Your task to perform on an android device: change the clock display to analog Image 0: 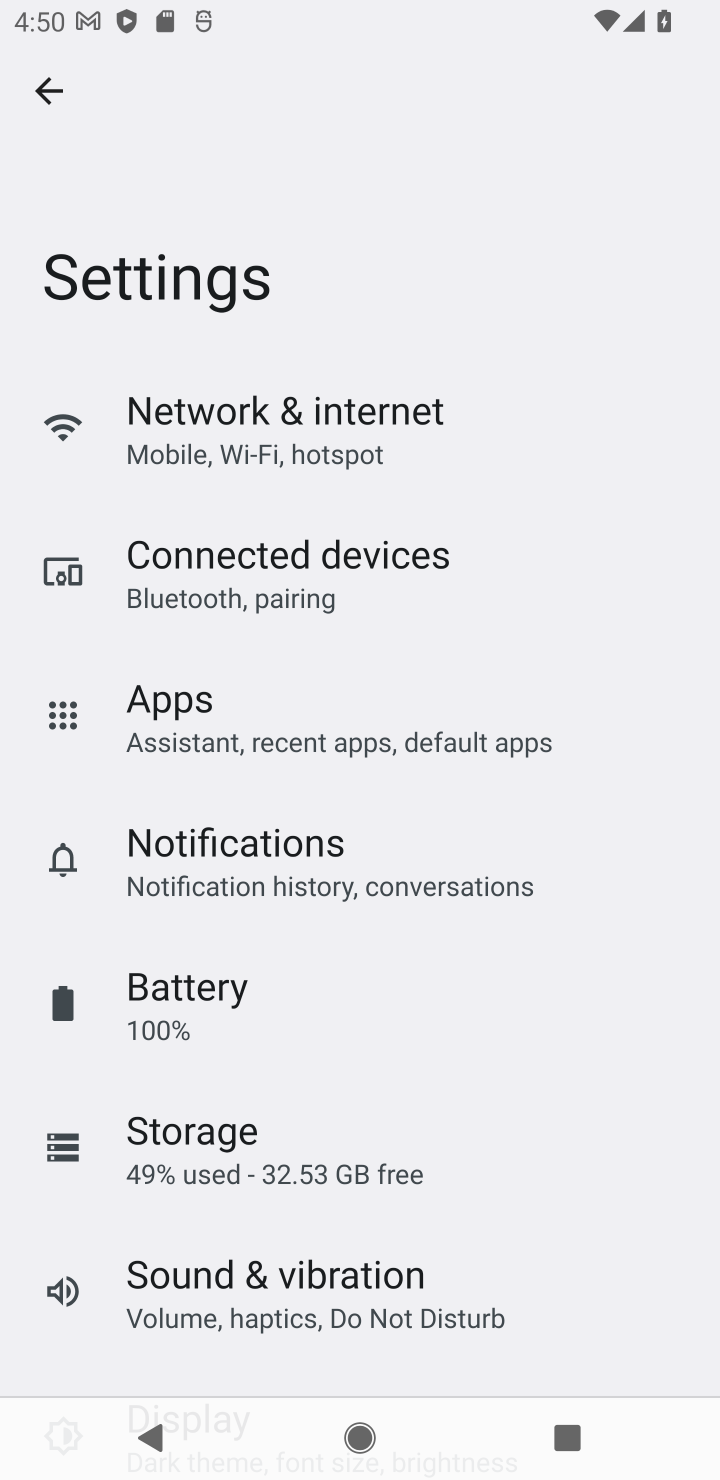
Step 0: press home button
Your task to perform on an android device: change the clock display to analog Image 1: 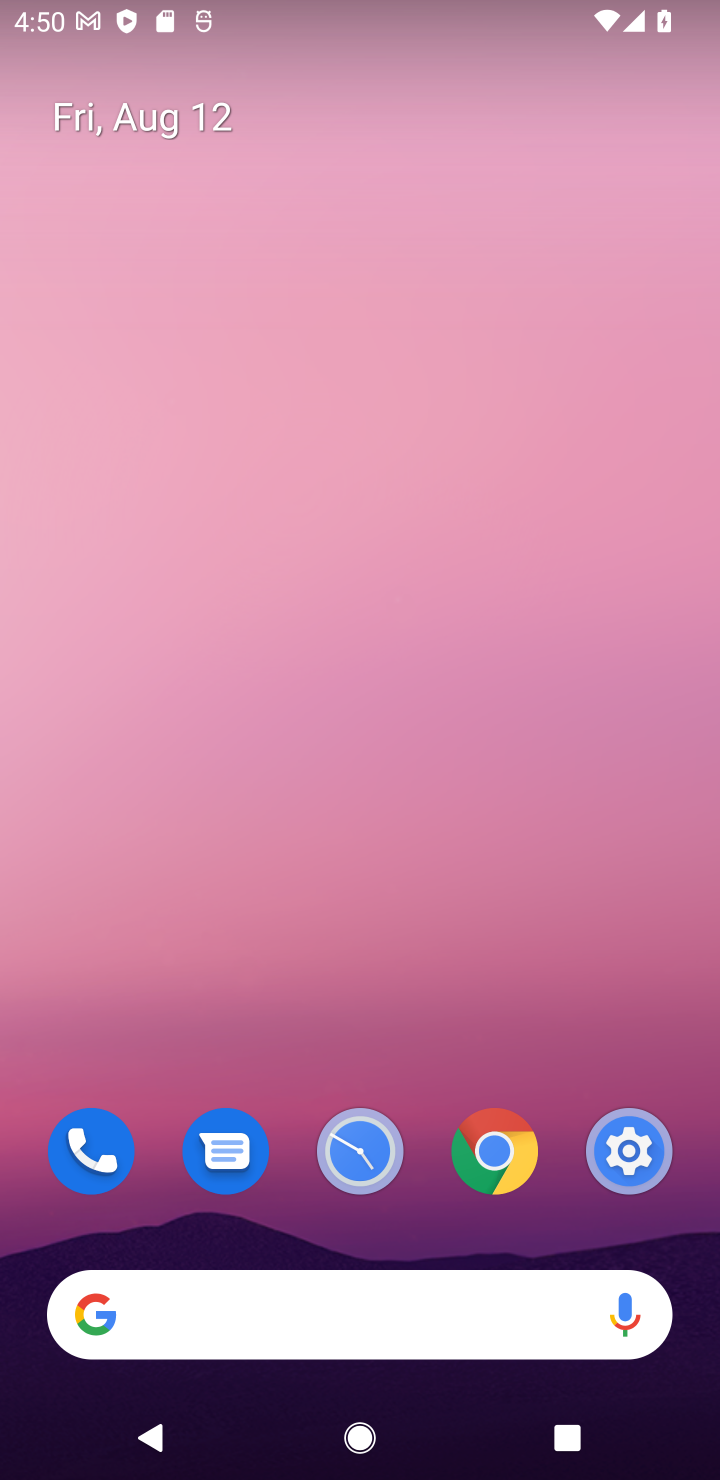
Step 1: drag from (411, 1026) to (611, 135)
Your task to perform on an android device: change the clock display to analog Image 2: 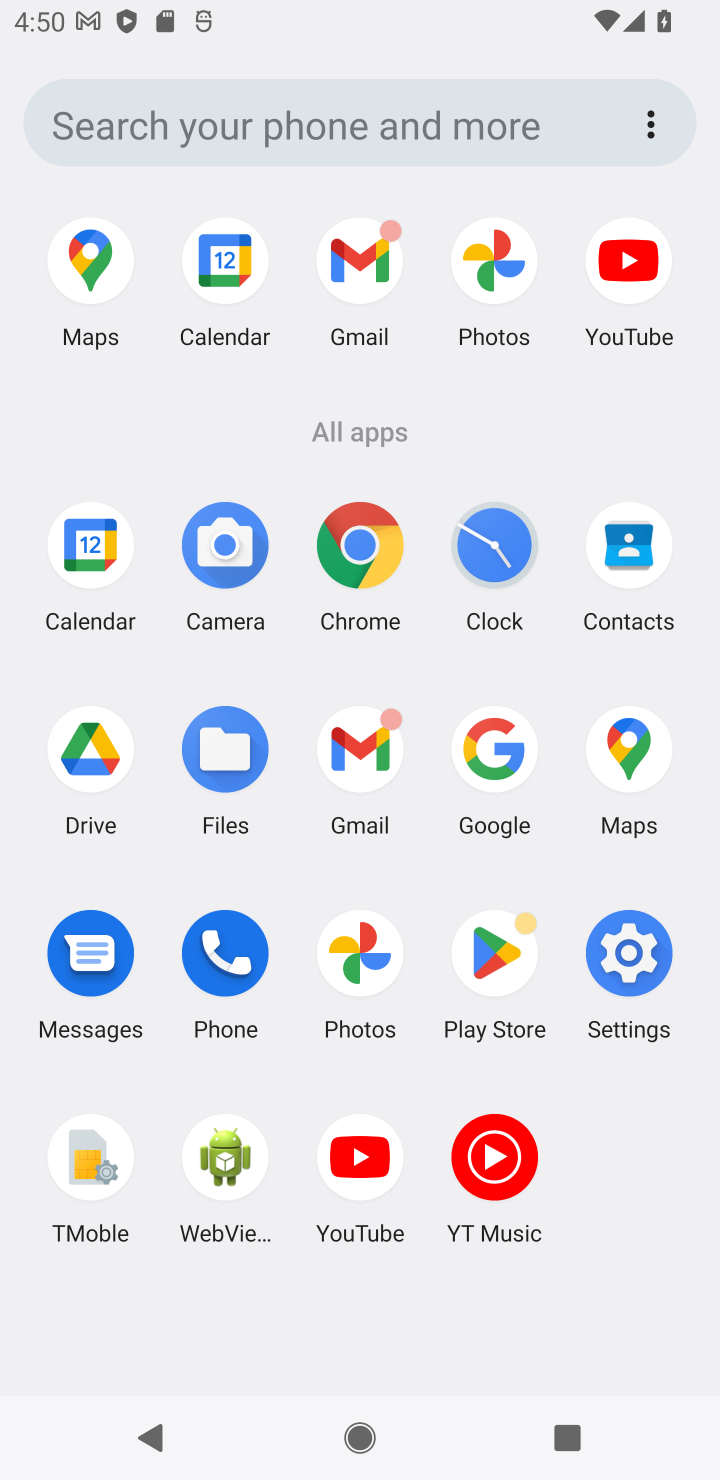
Step 2: click (514, 557)
Your task to perform on an android device: change the clock display to analog Image 3: 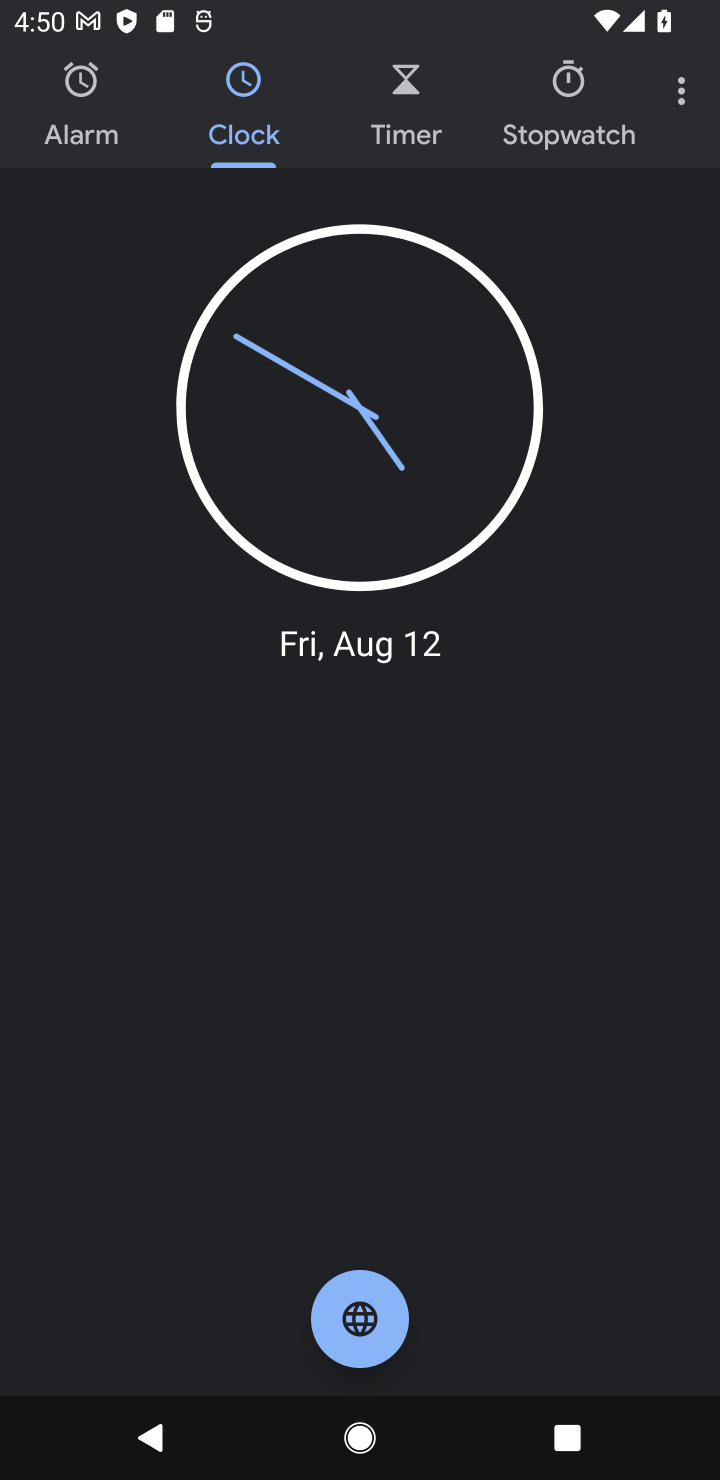
Step 3: click (669, 63)
Your task to perform on an android device: change the clock display to analog Image 4: 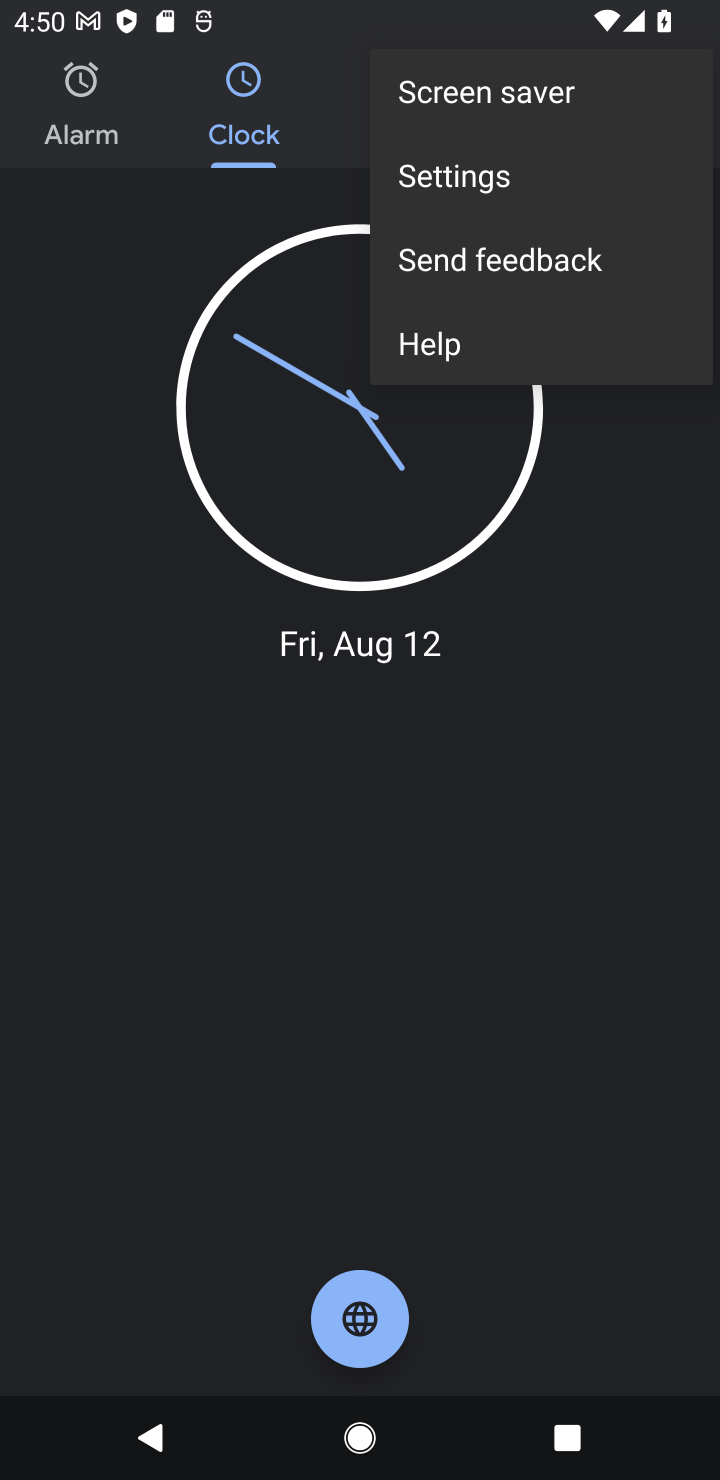
Step 4: click (480, 168)
Your task to perform on an android device: change the clock display to analog Image 5: 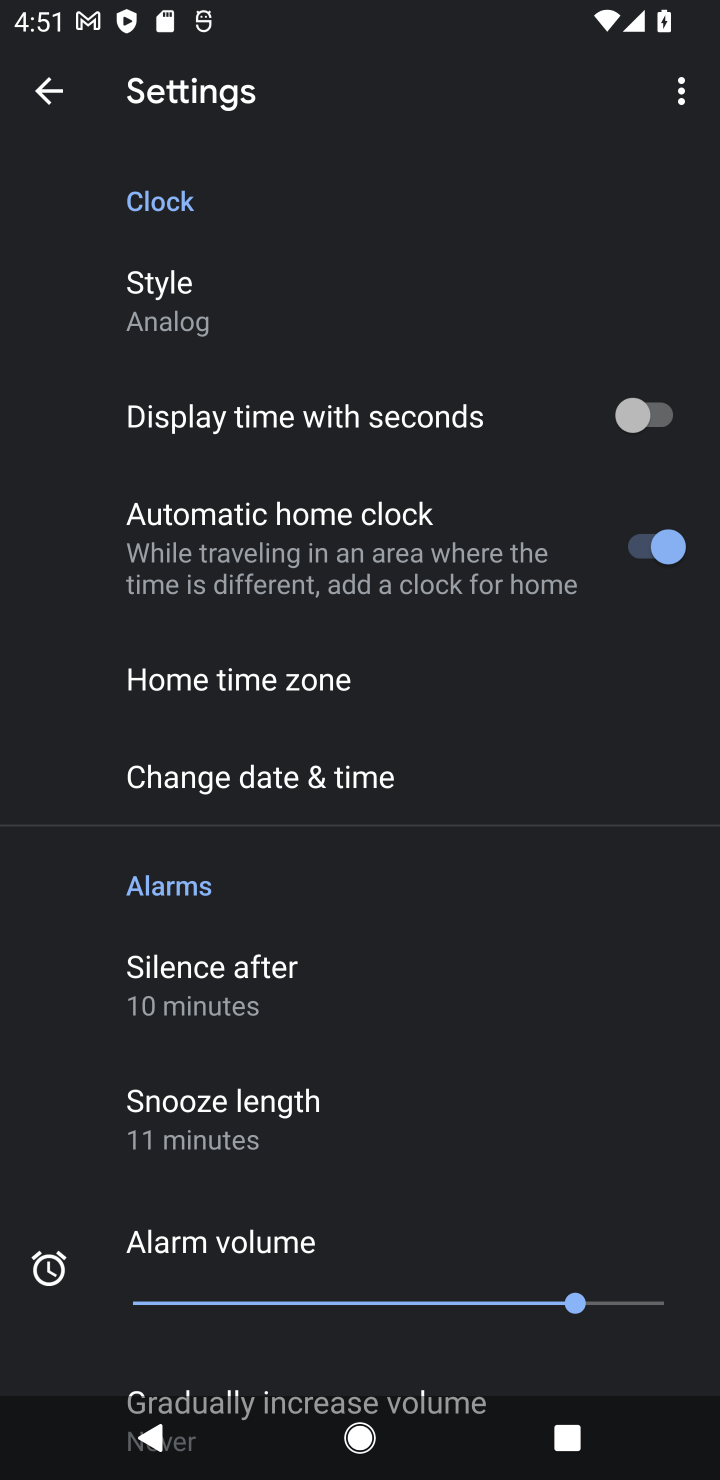
Step 5: task complete